Your task to perform on an android device: toggle data saver in the chrome app Image 0: 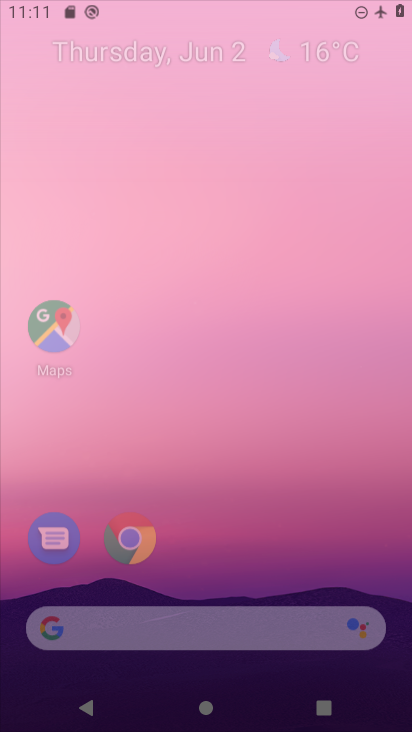
Step 0: click (320, 217)
Your task to perform on an android device: toggle data saver in the chrome app Image 1: 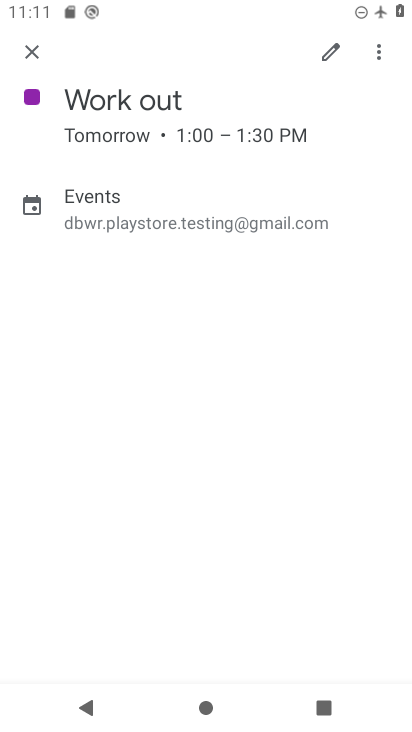
Step 1: press home button
Your task to perform on an android device: toggle data saver in the chrome app Image 2: 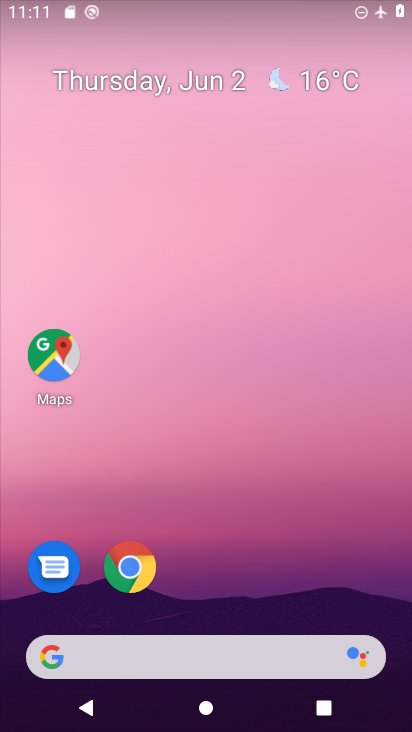
Step 2: click (129, 568)
Your task to perform on an android device: toggle data saver in the chrome app Image 3: 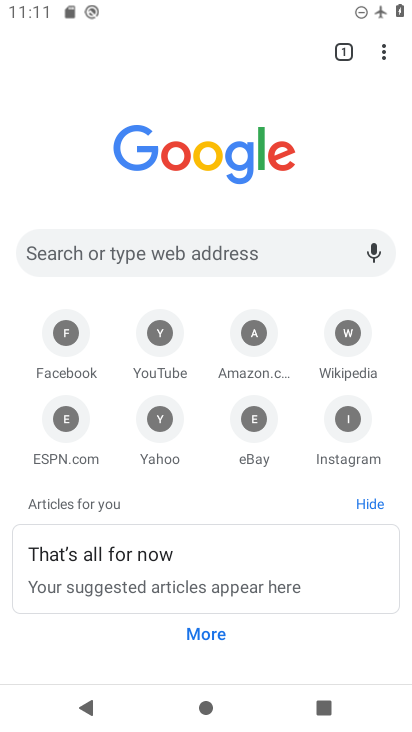
Step 3: drag from (387, 42) to (264, 434)
Your task to perform on an android device: toggle data saver in the chrome app Image 4: 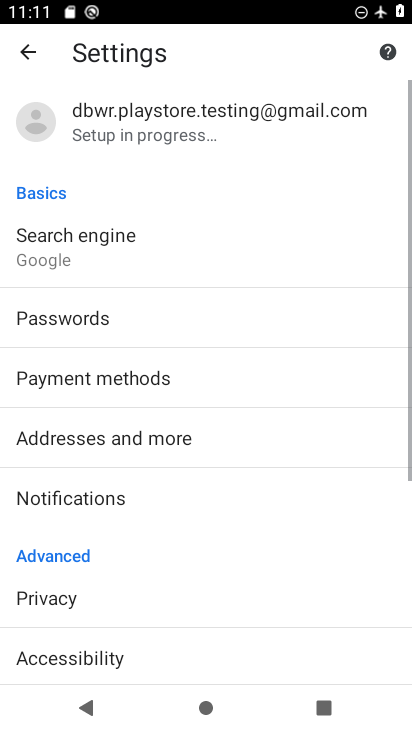
Step 4: drag from (143, 599) to (158, 116)
Your task to perform on an android device: toggle data saver in the chrome app Image 5: 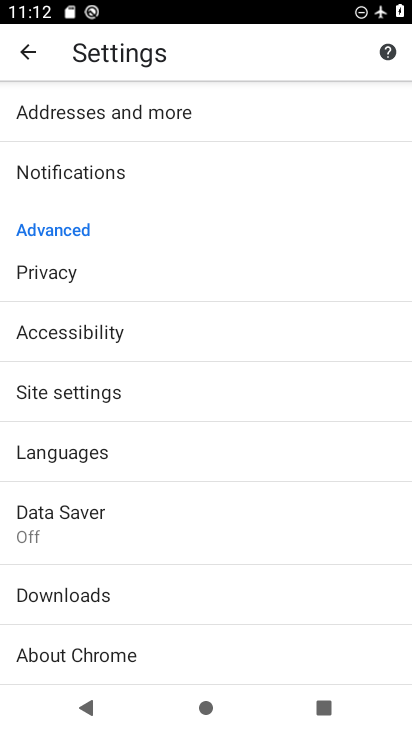
Step 5: click (96, 514)
Your task to perform on an android device: toggle data saver in the chrome app Image 6: 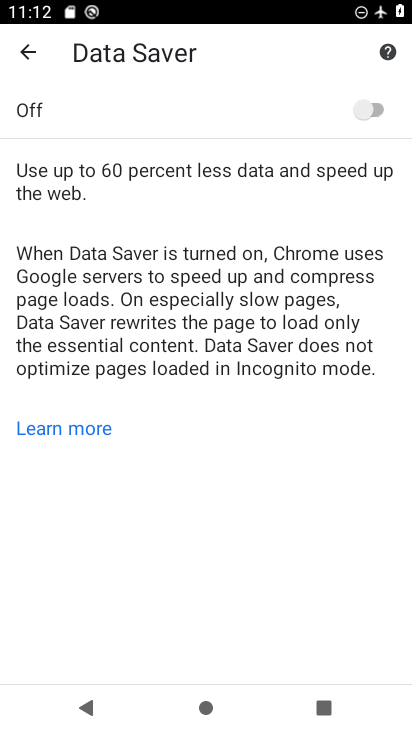
Step 6: click (361, 106)
Your task to perform on an android device: toggle data saver in the chrome app Image 7: 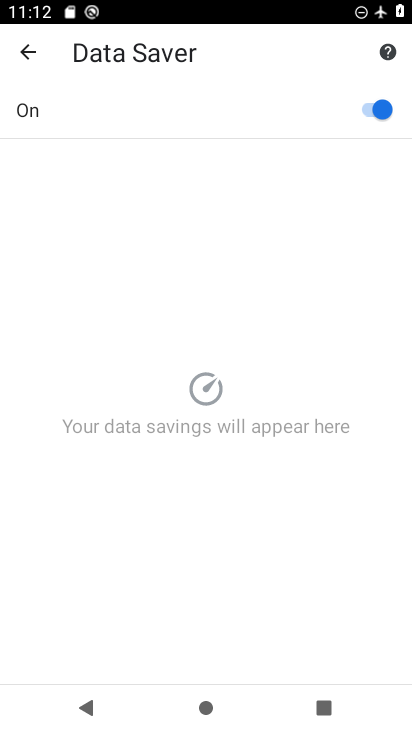
Step 7: task complete